Your task to perform on an android device: Go to privacy settings Image 0: 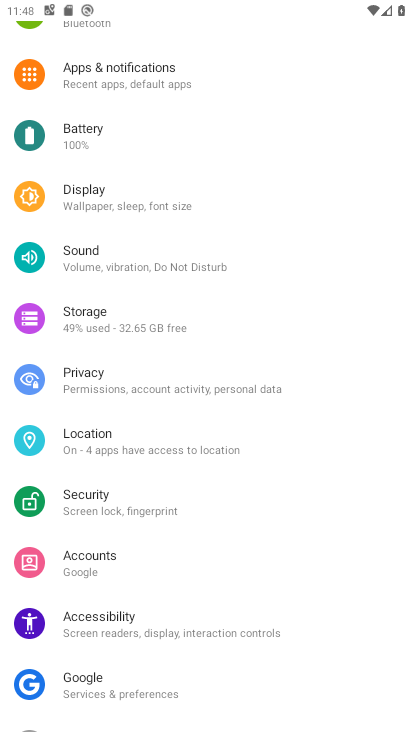
Step 0: press home button
Your task to perform on an android device: Go to privacy settings Image 1: 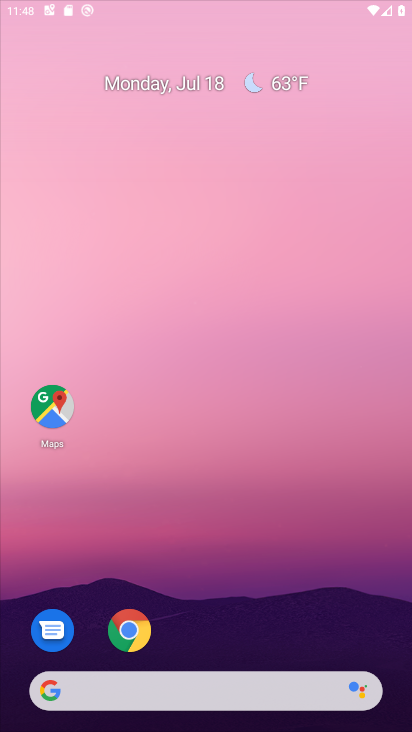
Step 1: drag from (204, 639) to (211, 76)
Your task to perform on an android device: Go to privacy settings Image 2: 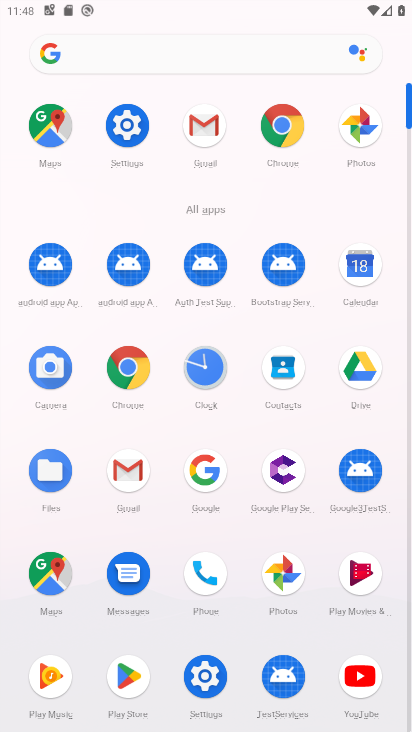
Step 2: click (131, 129)
Your task to perform on an android device: Go to privacy settings Image 3: 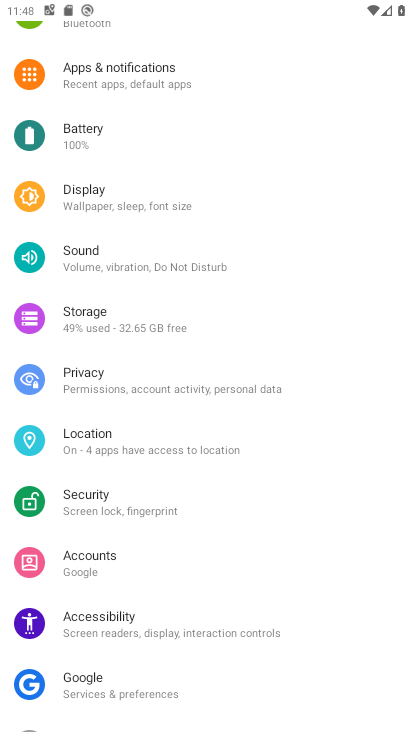
Step 3: click (98, 376)
Your task to perform on an android device: Go to privacy settings Image 4: 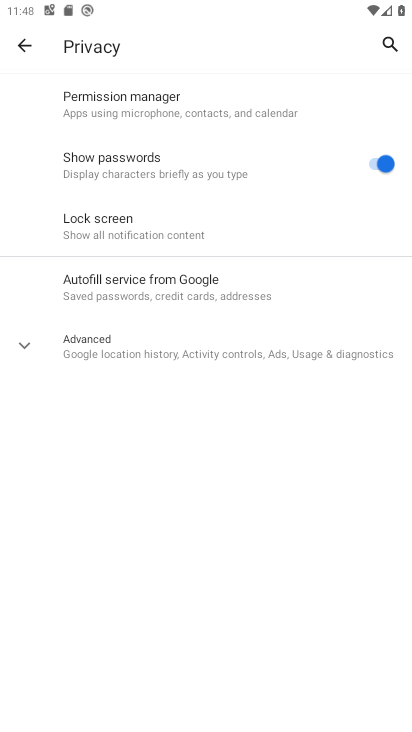
Step 4: task complete